Your task to perform on an android device: Open battery settings Image 0: 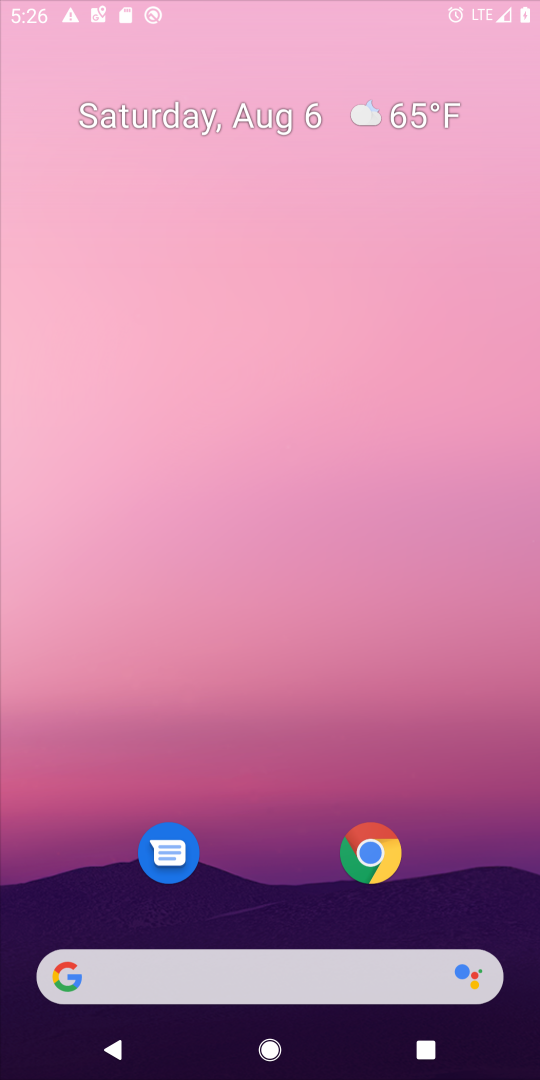
Step 0: click (389, 66)
Your task to perform on an android device: Open battery settings Image 1: 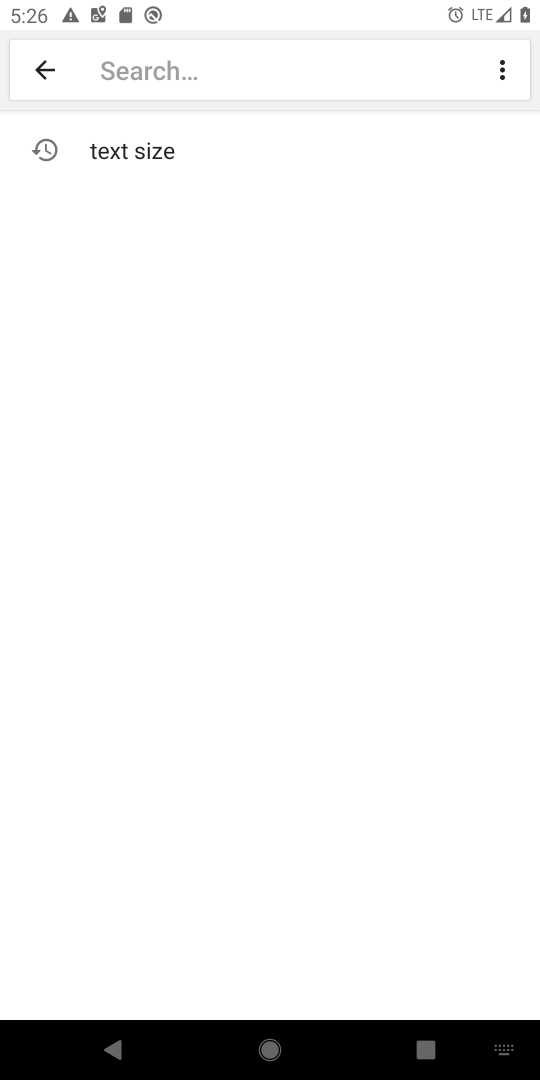
Step 1: click (215, 61)
Your task to perform on an android device: Open battery settings Image 2: 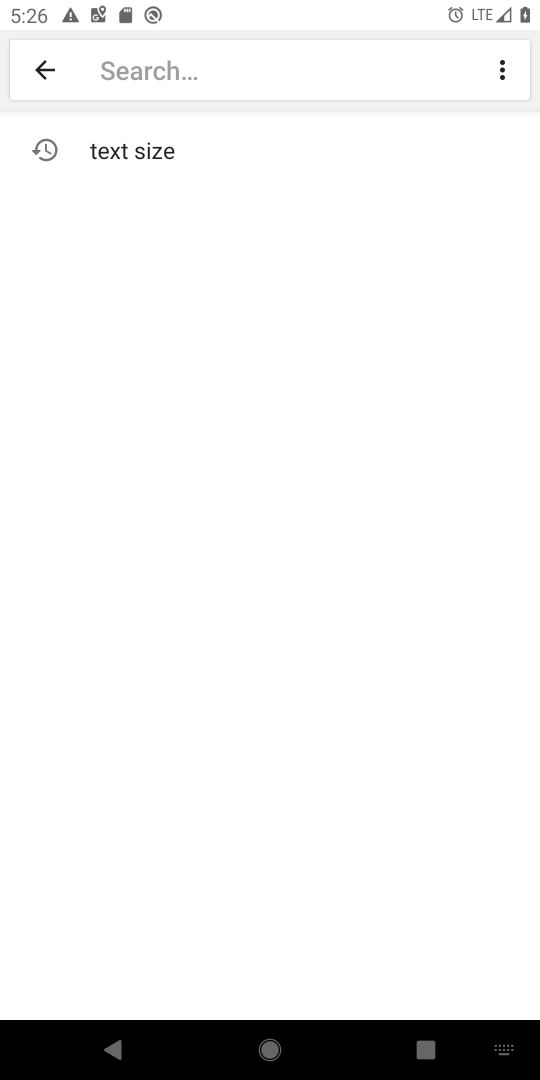
Step 2: click (36, 70)
Your task to perform on an android device: Open battery settings Image 3: 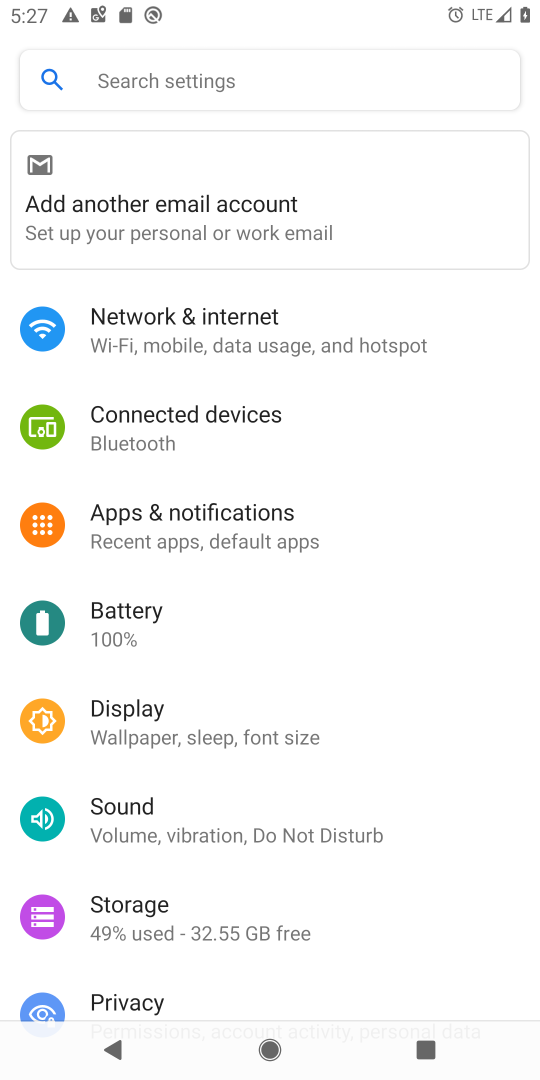
Step 3: click (141, 616)
Your task to perform on an android device: Open battery settings Image 4: 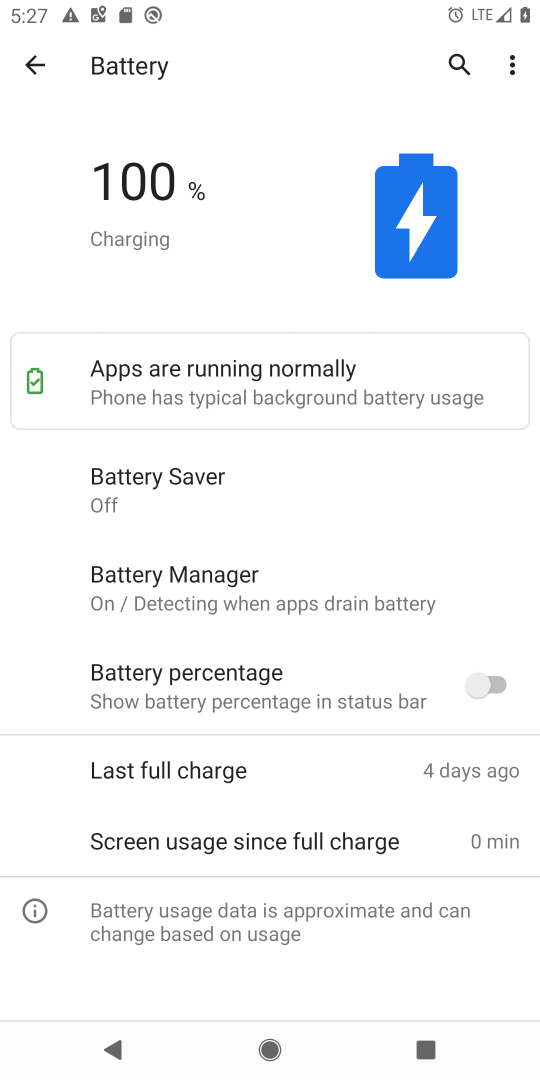
Step 4: task complete